Your task to perform on an android device: toggle javascript in the chrome app Image 0: 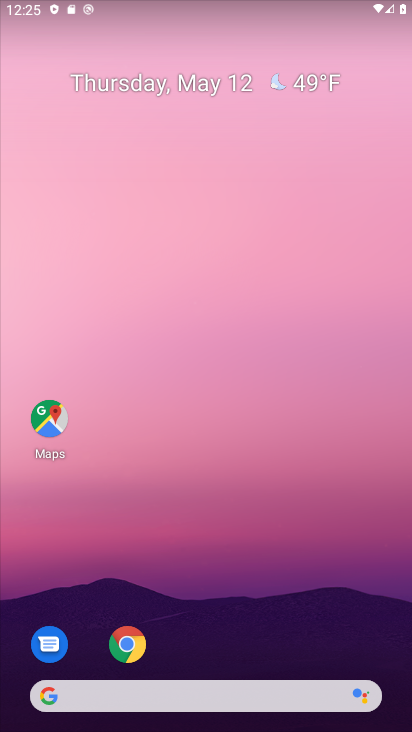
Step 0: click (132, 646)
Your task to perform on an android device: toggle javascript in the chrome app Image 1: 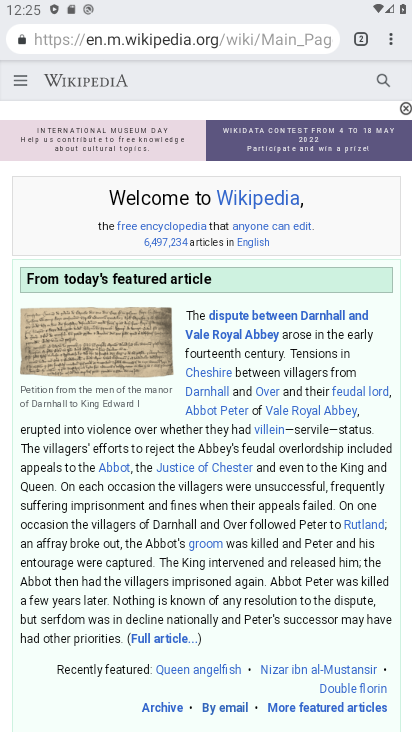
Step 1: click (393, 39)
Your task to perform on an android device: toggle javascript in the chrome app Image 2: 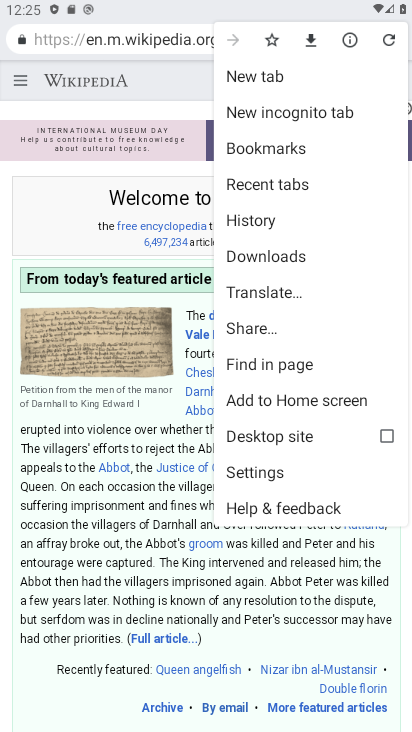
Step 2: click (267, 469)
Your task to perform on an android device: toggle javascript in the chrome app Image 3: 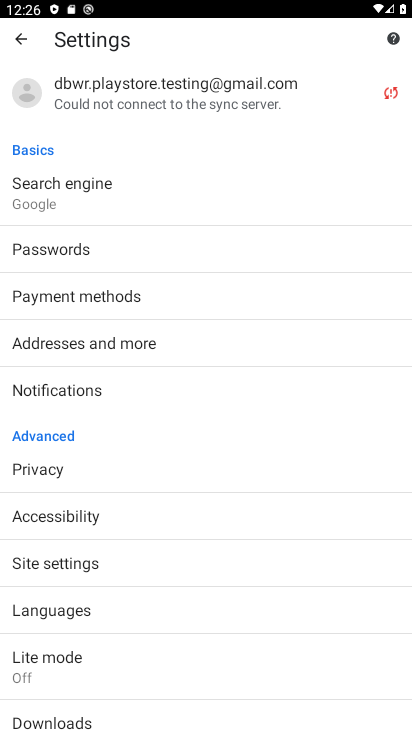
Step 3: drag from (188, 614) to (162, 455)
Your task to perform on an android device: toggle javascript in the chrome app Image 4: 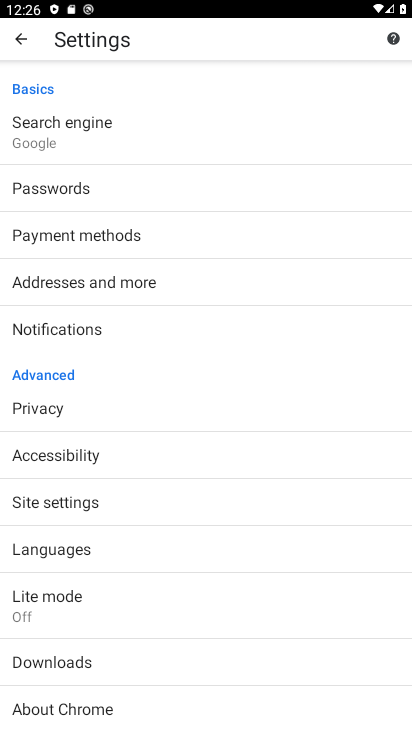
Step 4: click (79, 498)
Your task to perform on an android device: toggle javascript in the chrome app Image 5: 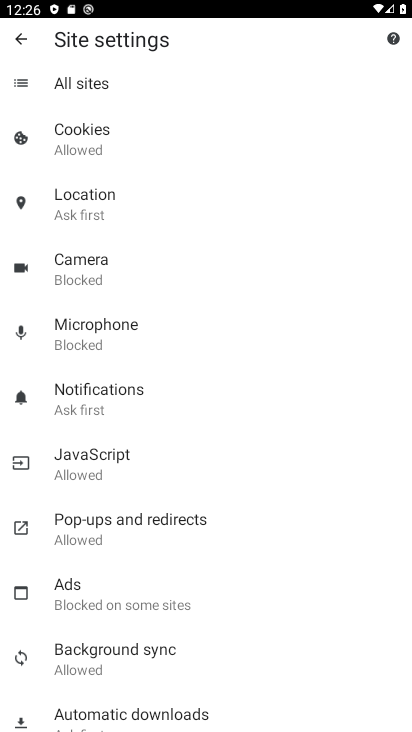
Step 5: click (94, 456)
Your task to perform on an android device: toggle javascript in the chrome app Image 6: 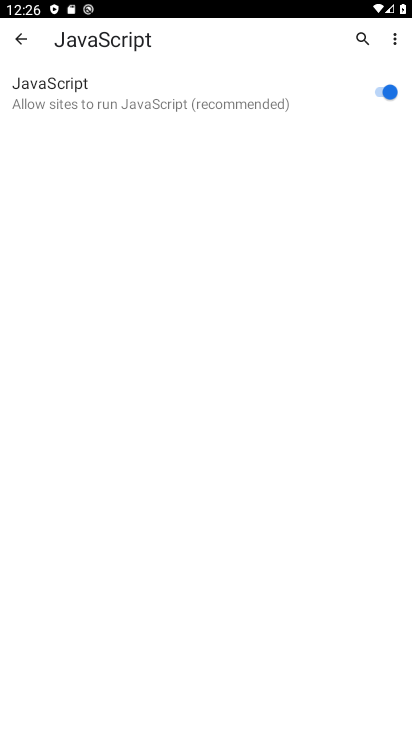
Step 6: click (389, 94)
Your task to perform on an android device: toggle javascript in the chrome app Image 7: 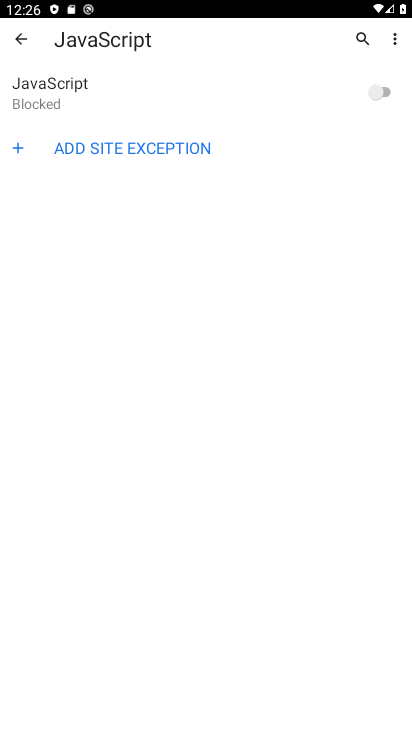
Step 7: task complete